Your task to perform on an android device: Show me the alarms in the clock app Image 0: 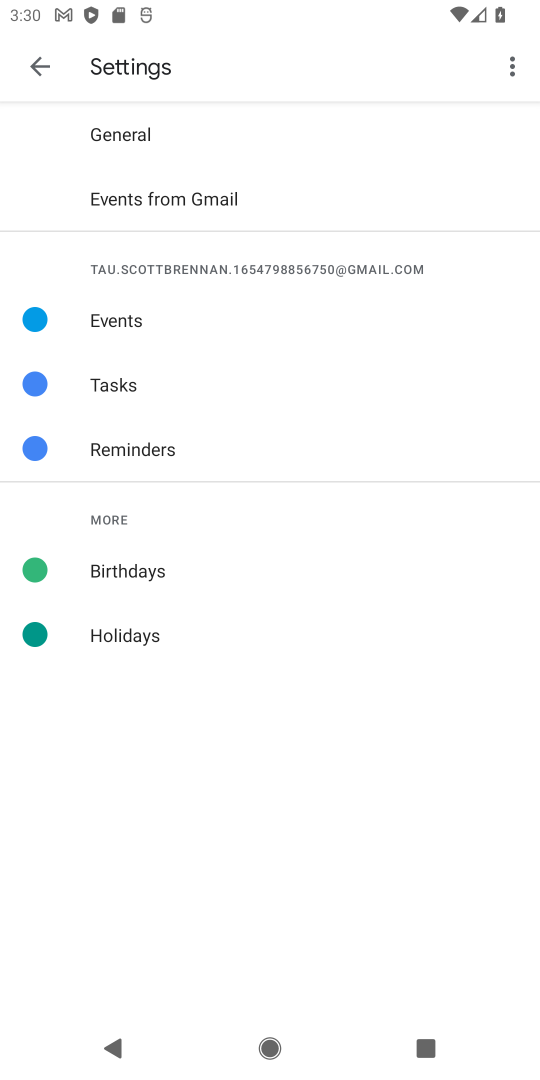
Step 0: press home button
Your task to perform on an android device: Show me the alarms in the clock app Image 1: 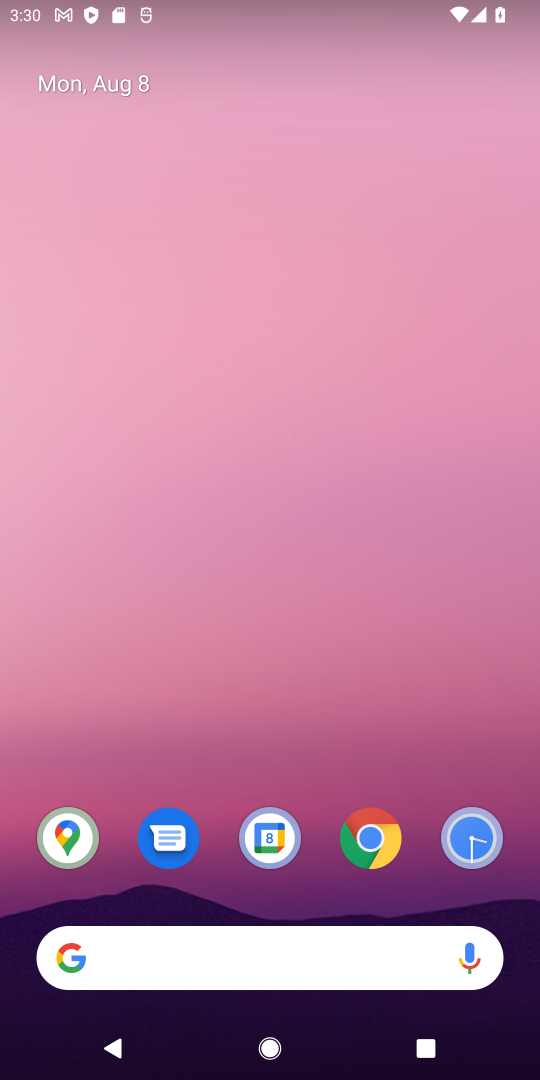
Step 1: drag from (335, 962) to (174, 526)
Your task to perform on an android device: Show me the alarms in the clock app Image 2: 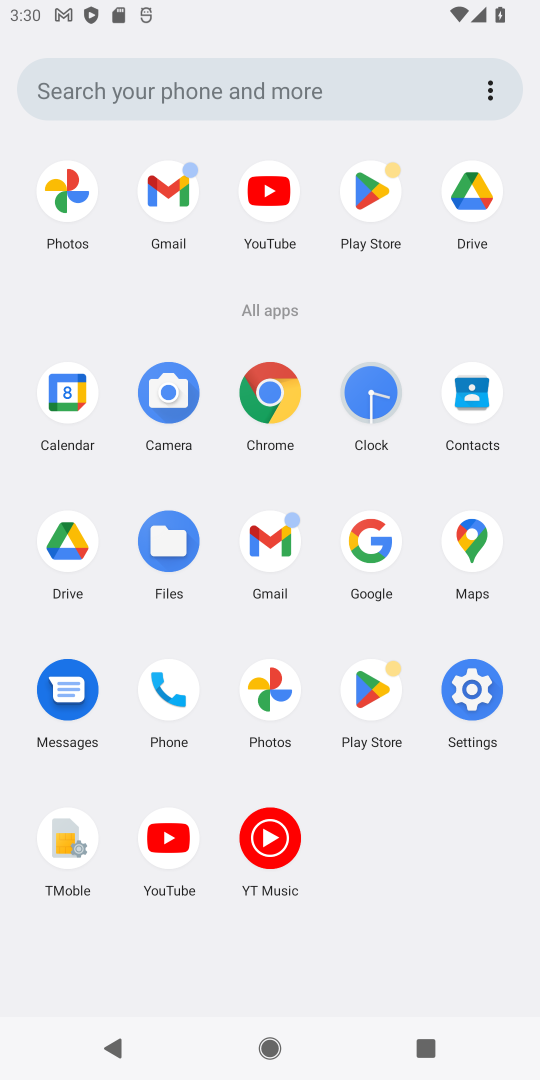
Step 2: click (370, 394)
Your task to perform on an android device: Show me the alarms in the clock app Image 3: 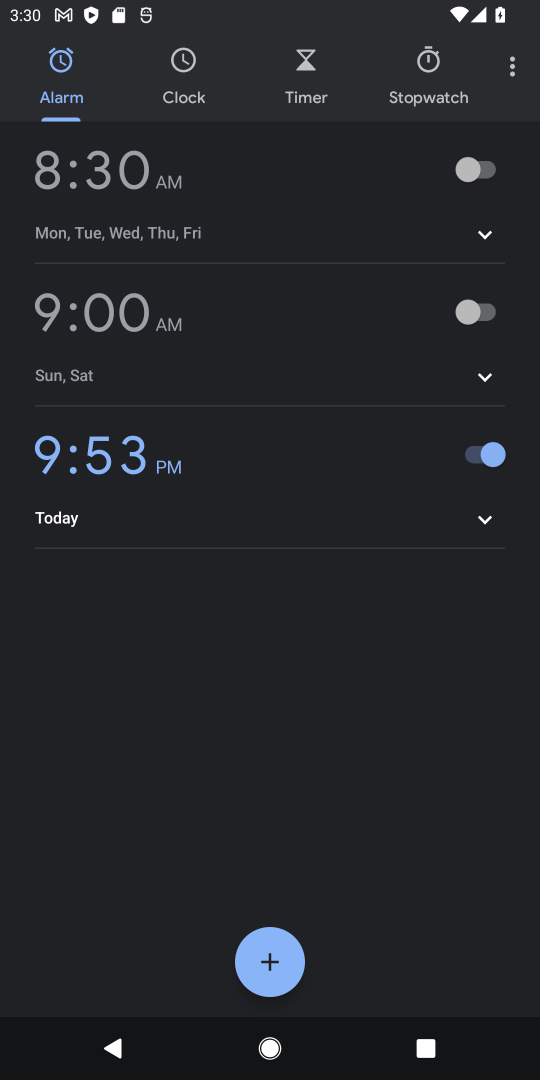
Step 3: click (477, 184)
Your task to perform on an android device: Show me the alarms in the clock app Image 4: 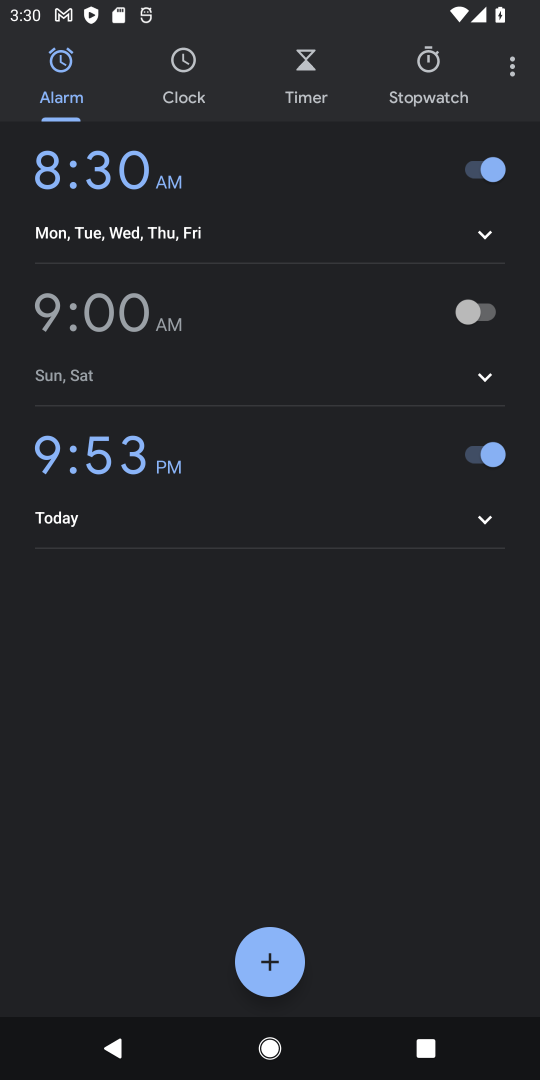
Step 4: task complete